Your task to perform on an android device: Open Chrome and go to settings Image 0: 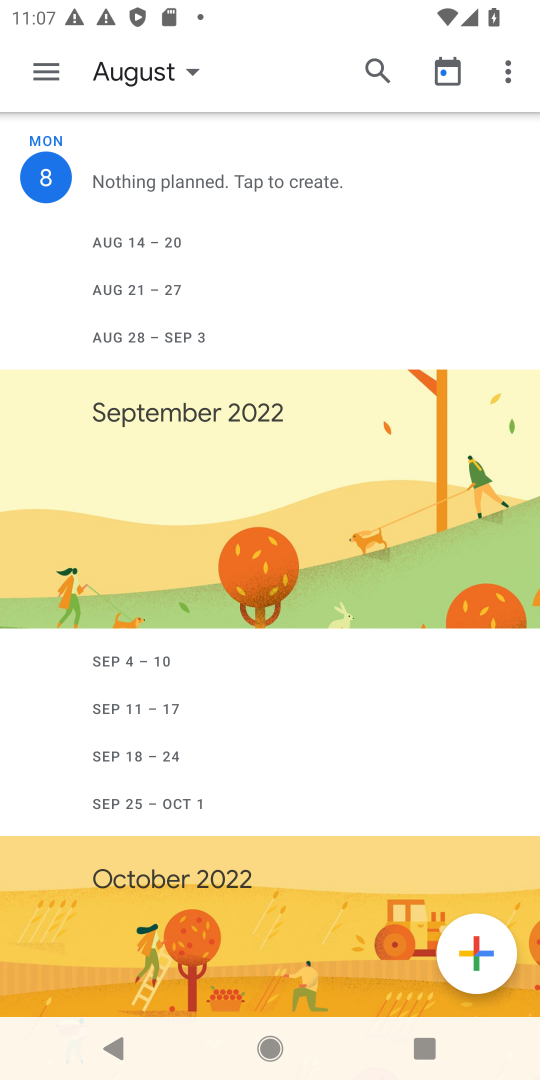
Step 0: press home button
Your task to perform on an android device: Open Chrome and go to settings Image 1: 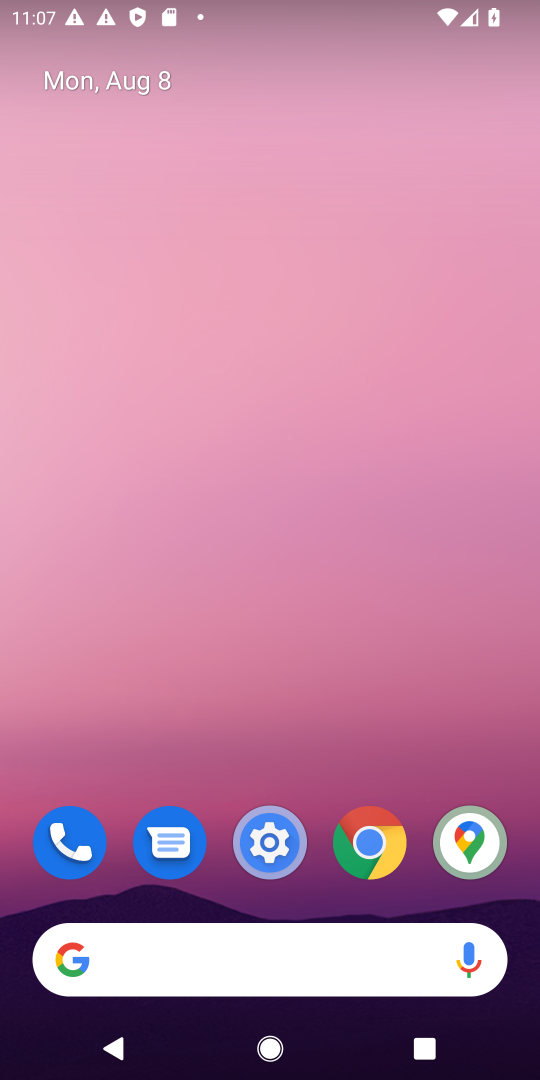
Step 1: click (350, 849)
Your task to perform on an android device: Open Chrome and go to settings Image 2: 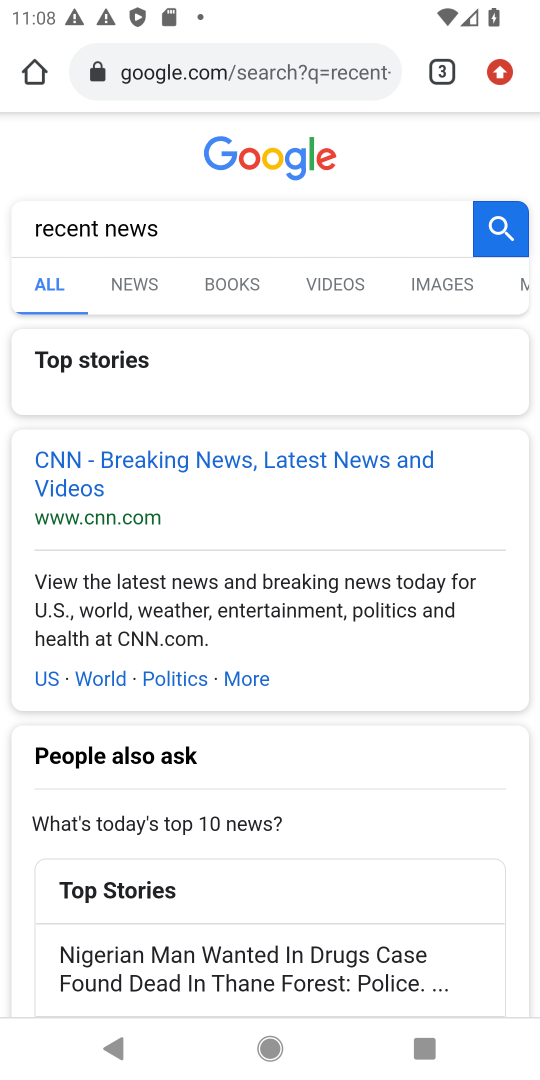
Step 2: click (500, 73)
Your task to perform on an android device: Open Chrome and go to settings Image 3: 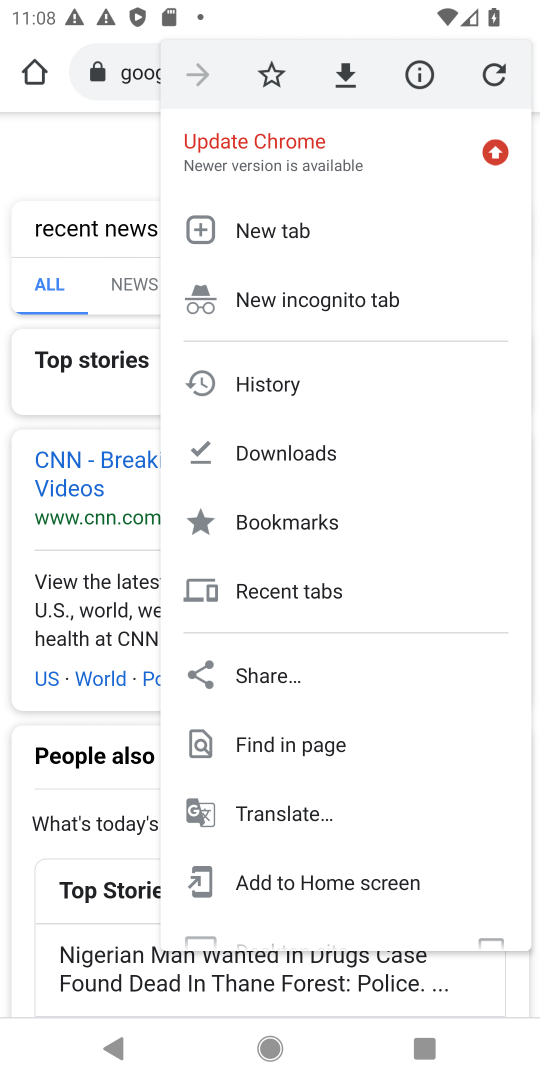
Step 3: drag from (240, 688) to (327, 269)
Your task to perform on an android device: Open Chrome and go to settings Image 4: 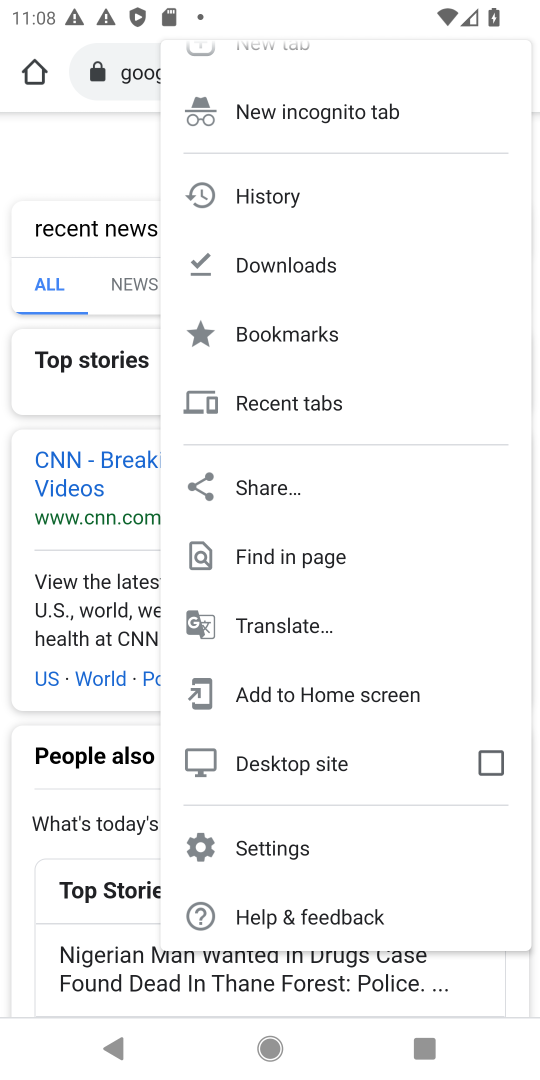
Step 4: click (271, 849)
Your task to perform on an android device: Open Chrome and go to settings Image 5: 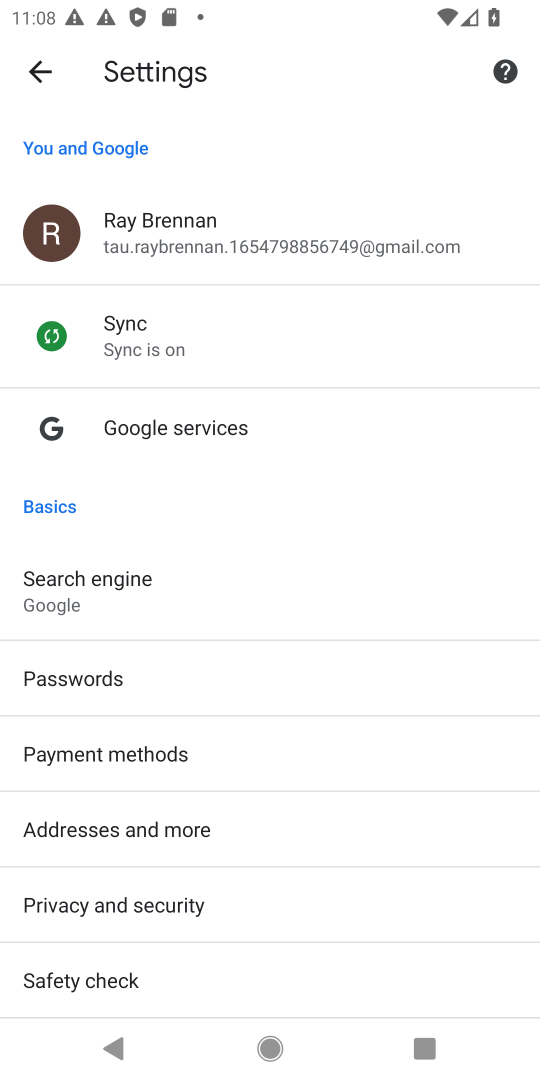
Step 5: task complete